Your task to perform on an android device: Open Google Chrome and open the bookmarks view Image 0: 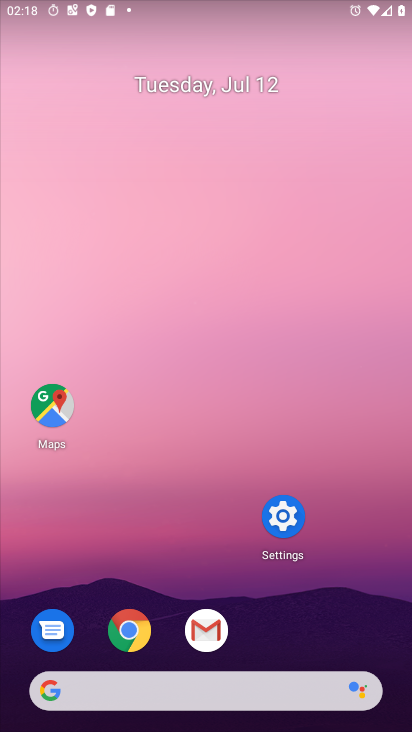
Step 0: click (139, 636)
Your task to perform on an android device: Open Google Chrome and open the bookmarks view Image 1: 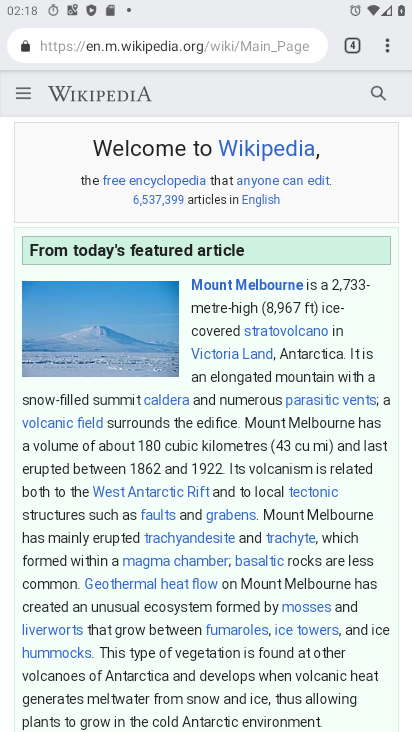
Step 1: click (389, 43)
Your task to perform on an android device: Open Google Chrome and open the bookmarks view Image 2: 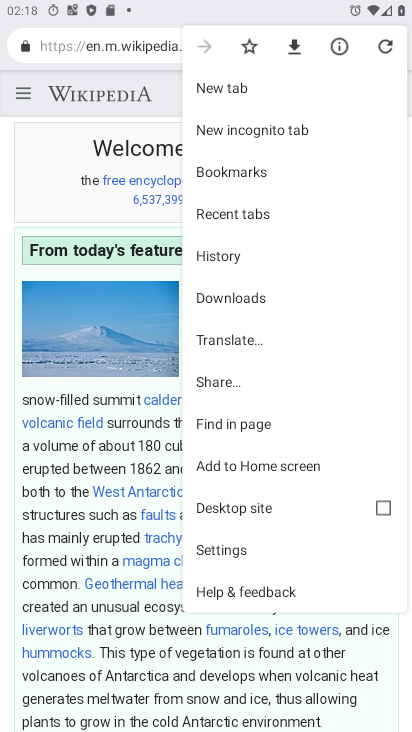
Step 2: click (248, 175)
Your task to perform on an android device: Open Google Chrome and open the bookmarks view Image 3: 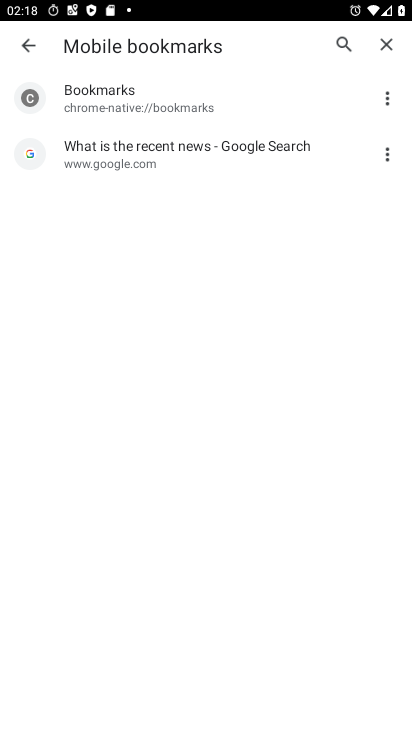
Step 3: click (143, 149)
Your task to perform on an android device: Open Google Chrome and open the bookmarks view Image 4: 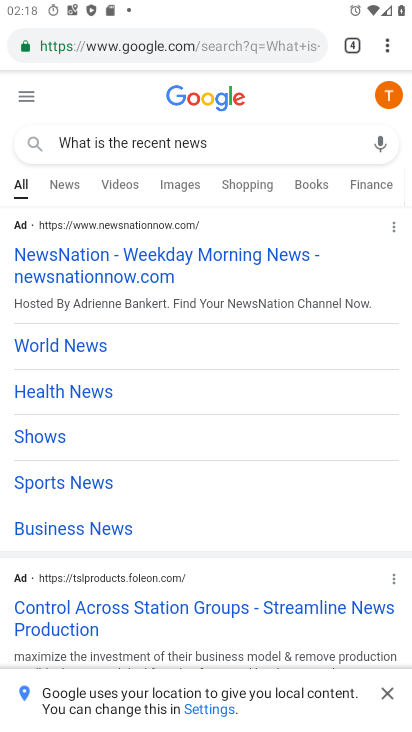
Step 4: task complete